Your task to perform on an android device: turn vacation reply on in the gmail app Image 0: 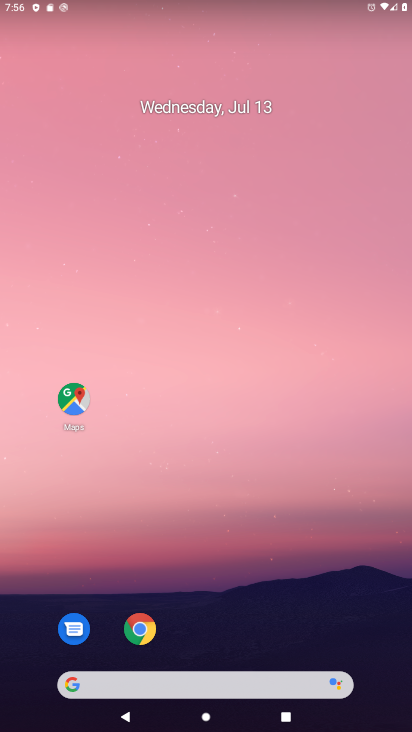
Step 0: drag from (335, 612) to (260, 54)
Your task to perform on an android device: turn vacation reply on in the gmail app Image 1: 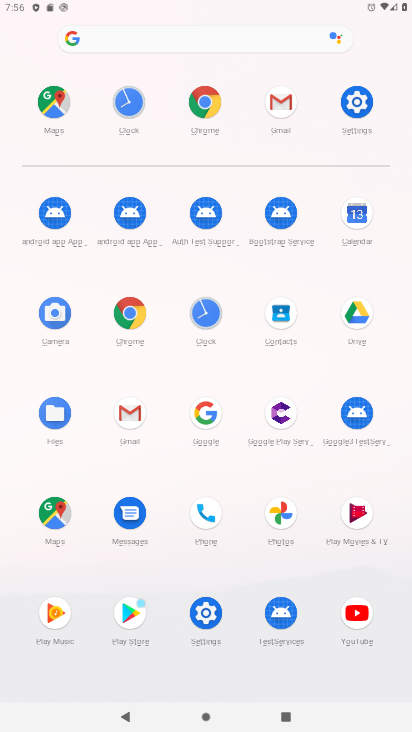
Step 1: click (288, 114)
Your task to perform on an android device: turn vacation reply on in the gmail app Image 2: 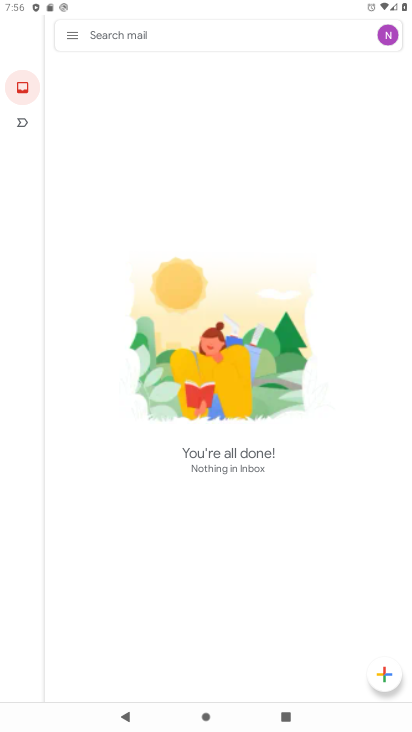
Step 2: click (69, 39)
Your task to perform on an android device: turn vacation reply on in the gmail app Image 3: 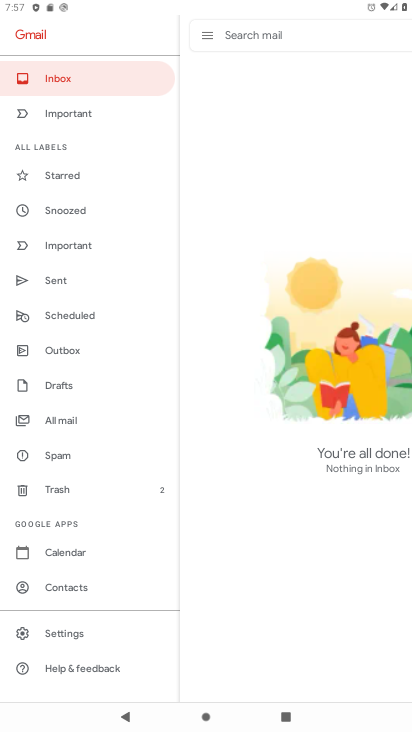
Step 3: click (67, 636)
Your task to perform on an android device: turn vacation reply on in the gmail app Image 4: 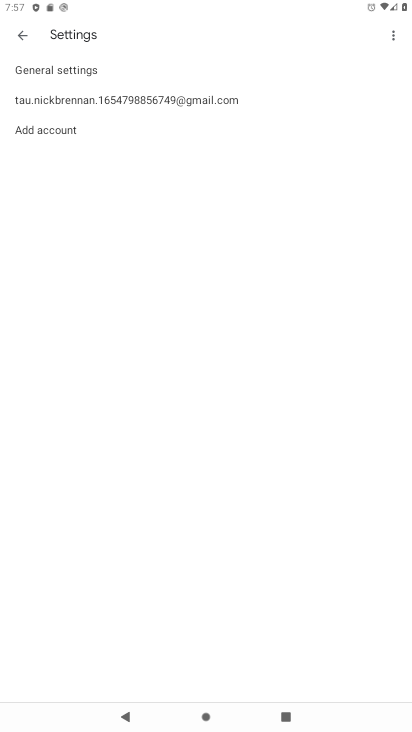
Step 4: click (130, 91)
Your task to perform on an android device: turn vacation reply on in the gmail app Image 5: 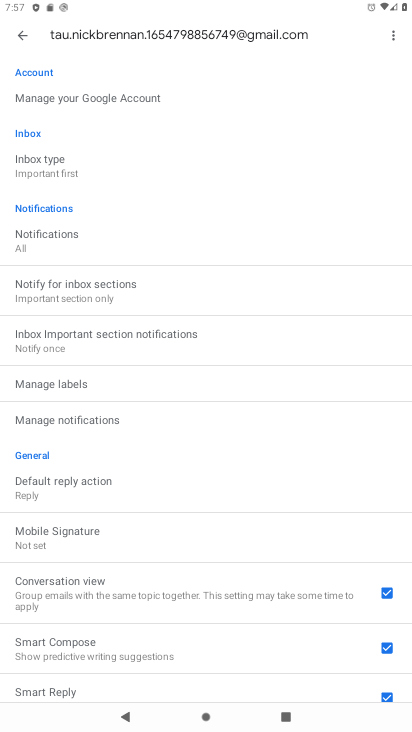
Step 5: drag from (114, 617) to (118, 193)
Your task to perform on an android device: turn vacation reply on in the gmail app Image 6: 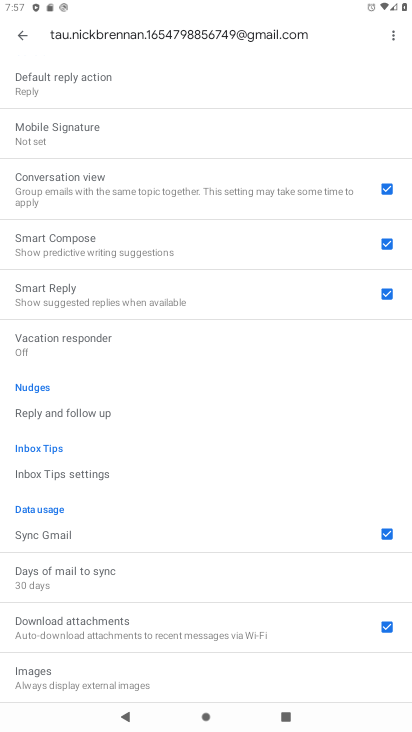
Step 6: click (45, 348)
Your task to perform on an android device: turn vacation reply on in the gmail app Image 7: 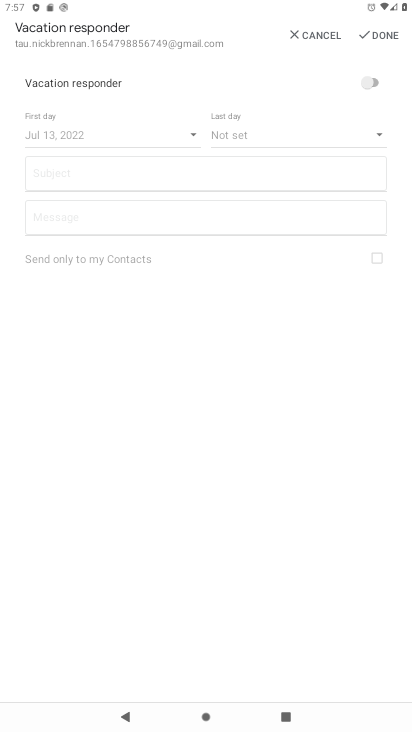
Step 7: click (359, 81)
Your task to perform on an android device: turn vacation reply on in the gmail app Image 8: 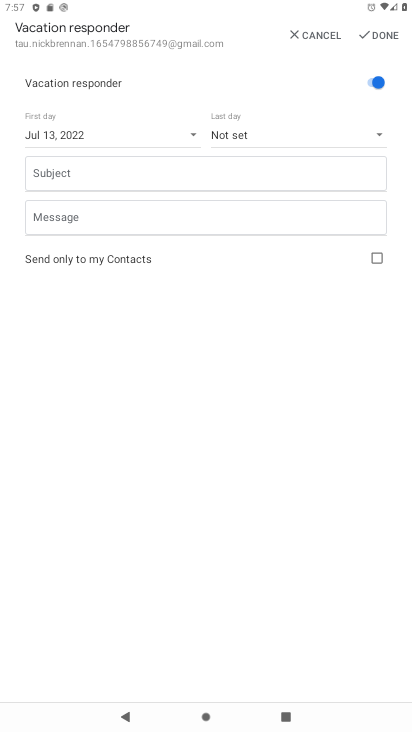
Step 8: task complete